Your task to perform on an android device: toggle location history Image 0: 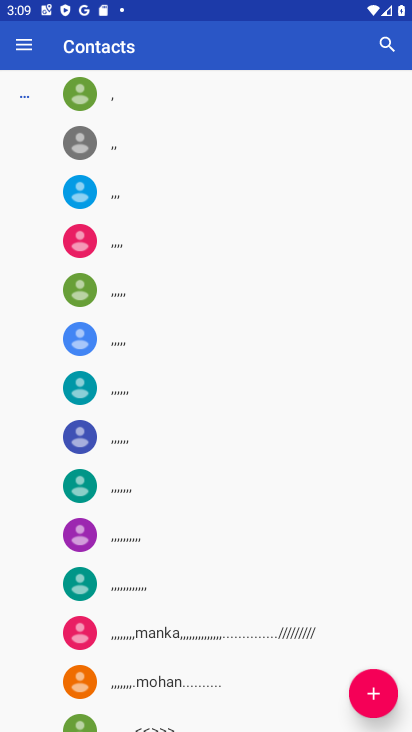
Step 0: press back button
Your task to perform on an android device: toggle location history Image 1: 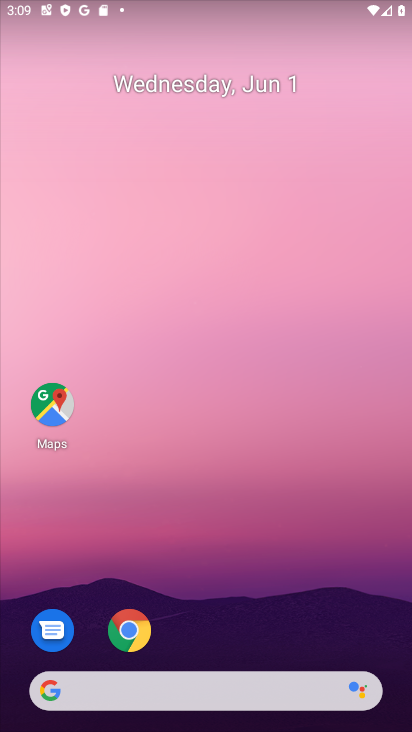
Step 1: drag from (229, 586) to (287, 141)
Your task to perform on an android device: toggle location history Image 2: 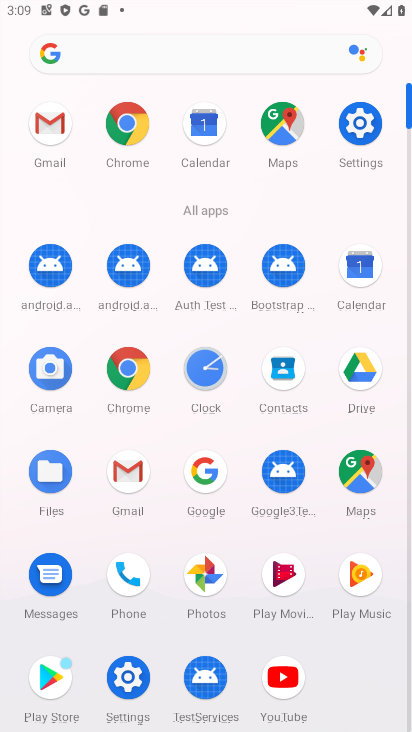
Step 2: click (360, 119)
Your task to perform on an android device: toggle location history Image 3: 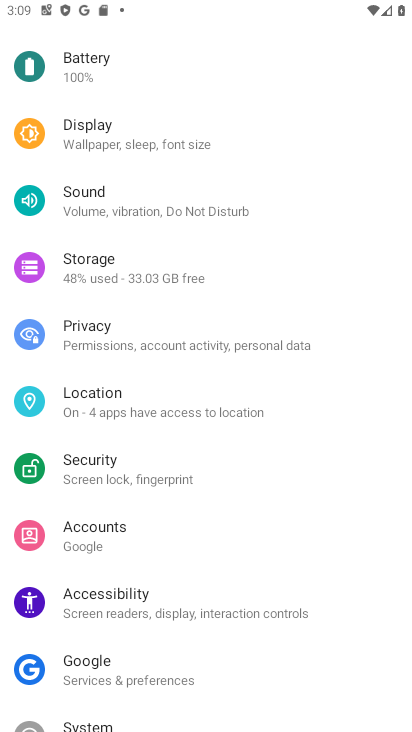
Step 3: click (79, 399)
Your task to perform on an android device: toggle location history Image 4: 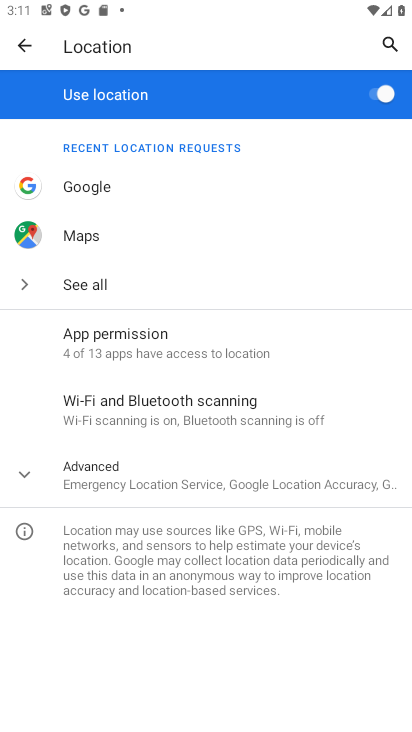
Step 4: click (187, 471)
Your task to perform on an android device: toggle location history Image 5: 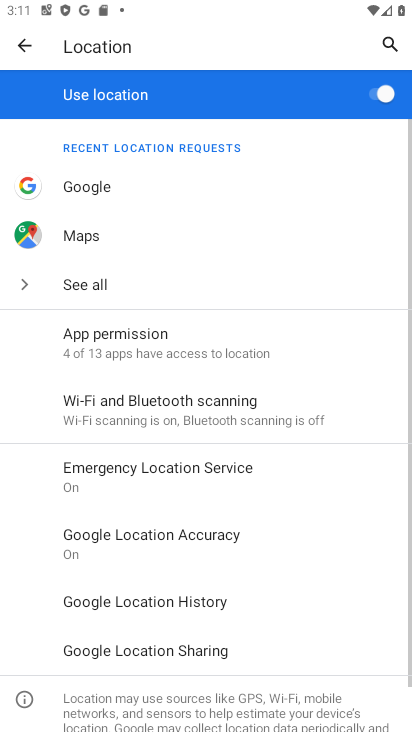
Step 5: click (145, 601)
Your task to perform on an android device: toggle location history Image 6: 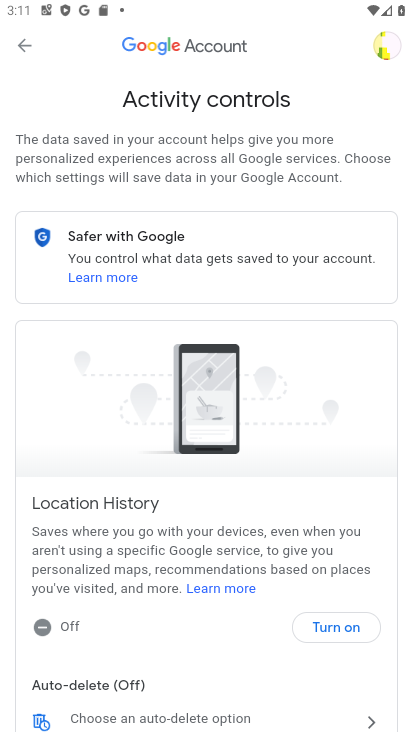
Step 6: click (340, 622)
Your task to perform on an android device: toggle location history Image 7: 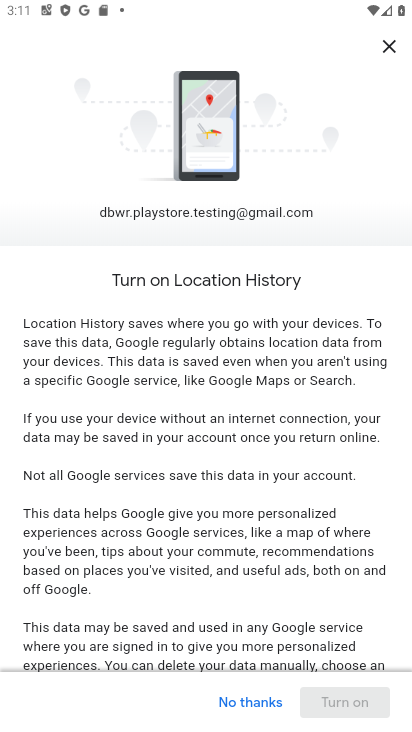
Step 7: drag from (248, 620) to (249, 212)
Your task to perform on an android device: toggle location history Image 8: 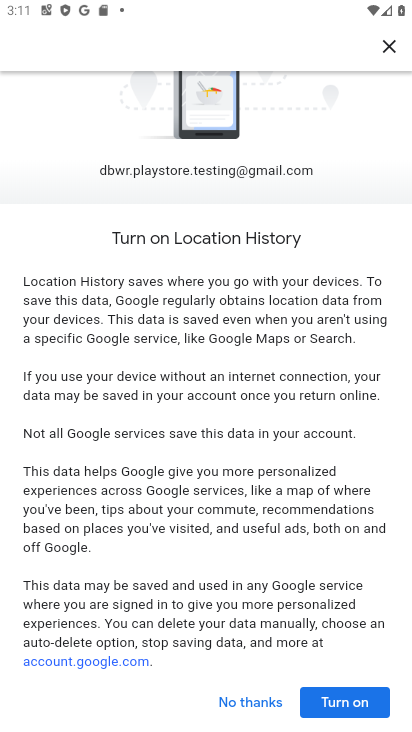
Step 8: click (337, 695)
Your task to perform on an android device: toggle location history Image 9: 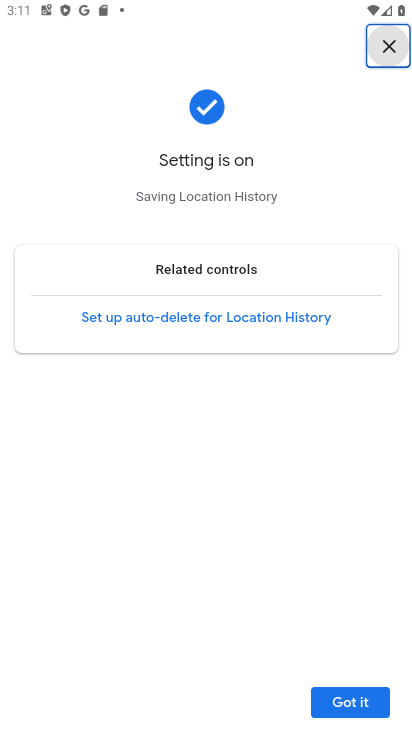
Step 9: task complete